Your task to perform on an android device: toggle javascript in the chrome app Image 0: 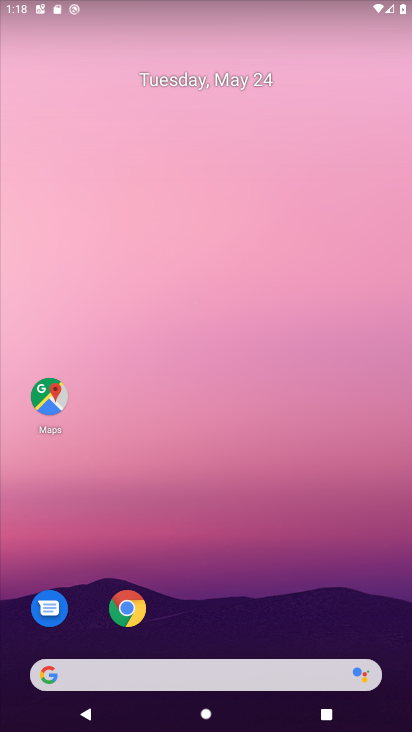
Step 0: click (132, 604)
Your task to perform on an android device: toggle javascript in the chrome app Image 1: 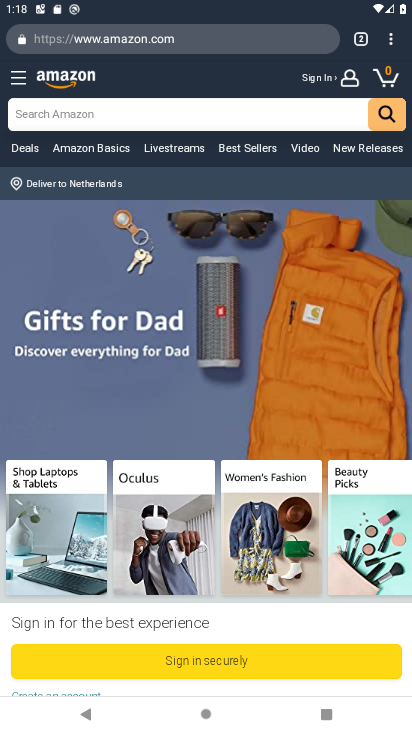
Step 1: click (394, 46)
Your task to perform on an android device: toggle javascript in the chrome app Image 2: 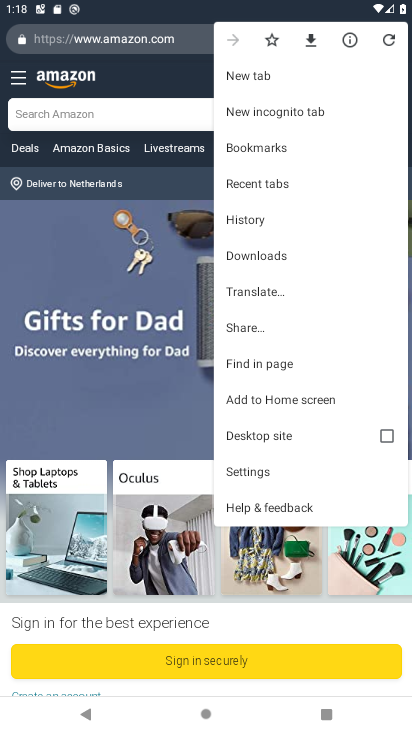
Step 2: click (300, 455)
Your task to perform on an android device: toggle javascript in the chrome app Image 3: 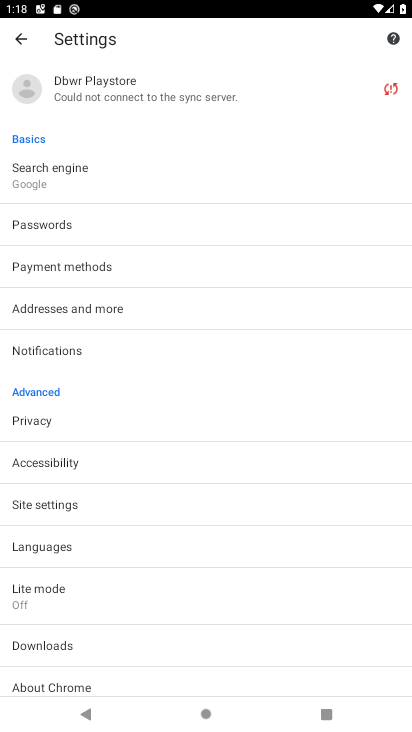
Step 3: click (144, 508)
Your task to perform on an android device: toggle javascript in the chrome app Image 4: 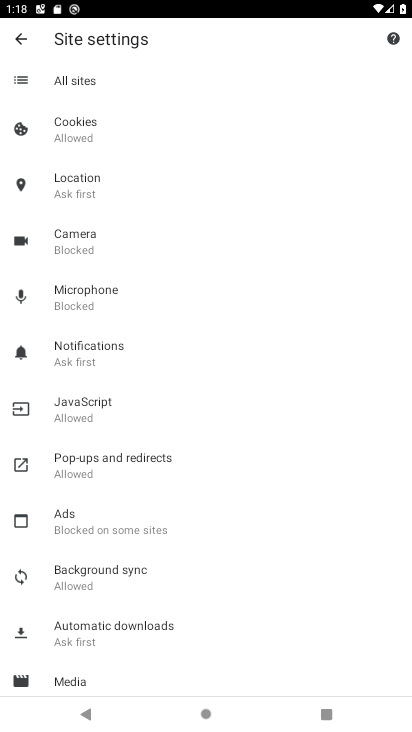
Step 4: click (172, 402)
Your task to perform on an android device: toggle javascript in the chrome app Image 5: 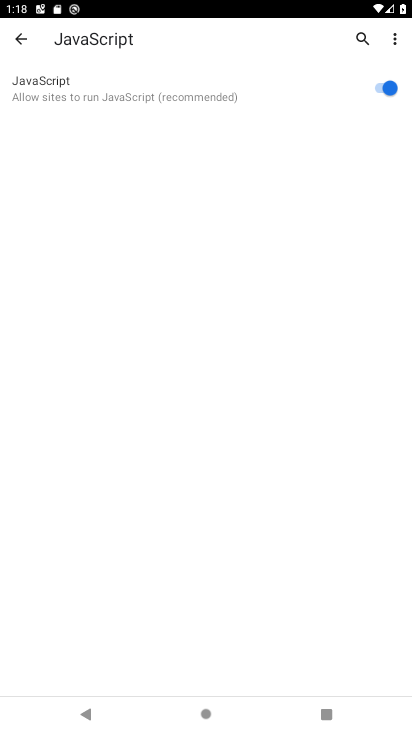
Step 5: click (361, 99)
Your task to perform on an android device: toggle javascript in the chrome app Image 6: 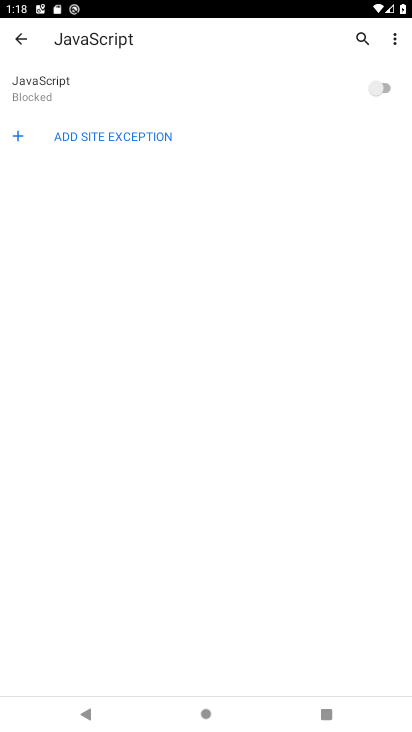
Step 6: task complete